Your task to perform on an android device: Search for vegetarian restaurants on Maps Image 0: 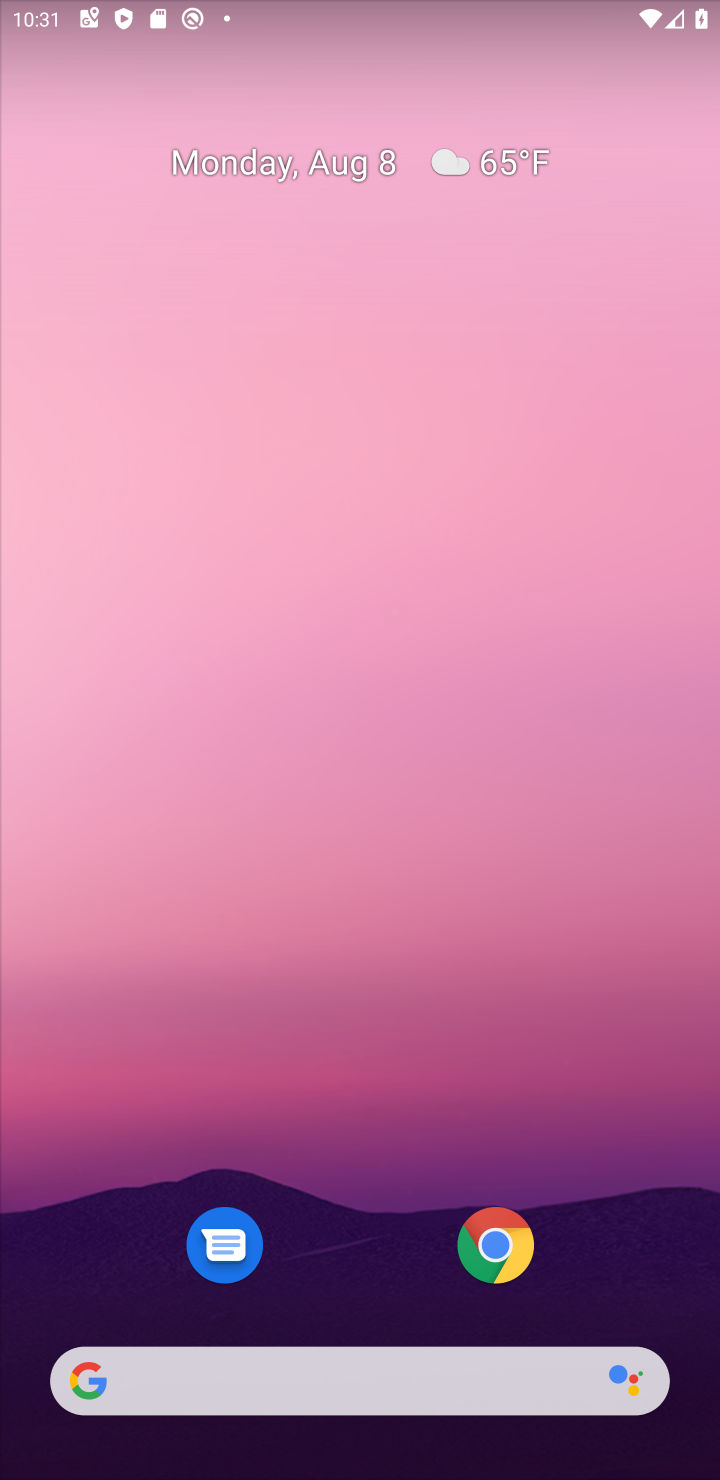
Step 0: drag from (365, 1177) to (319, 188)
Your task to perform on an android device: Search for vegetarian restaurants on Maps Image 1: 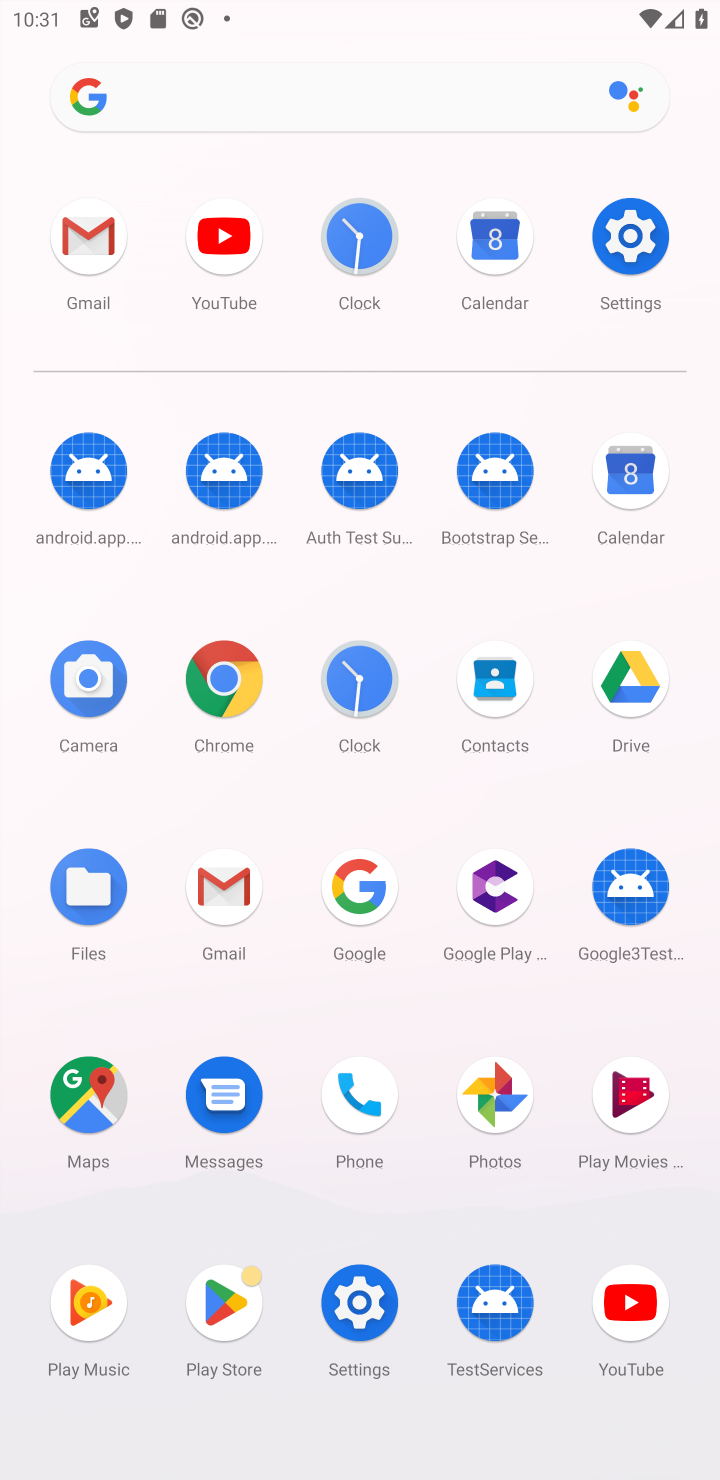
Step 1: click (86, 1096)
Your task to perform on an android device: Search for vegetarian restaurants on Maps Image 2: 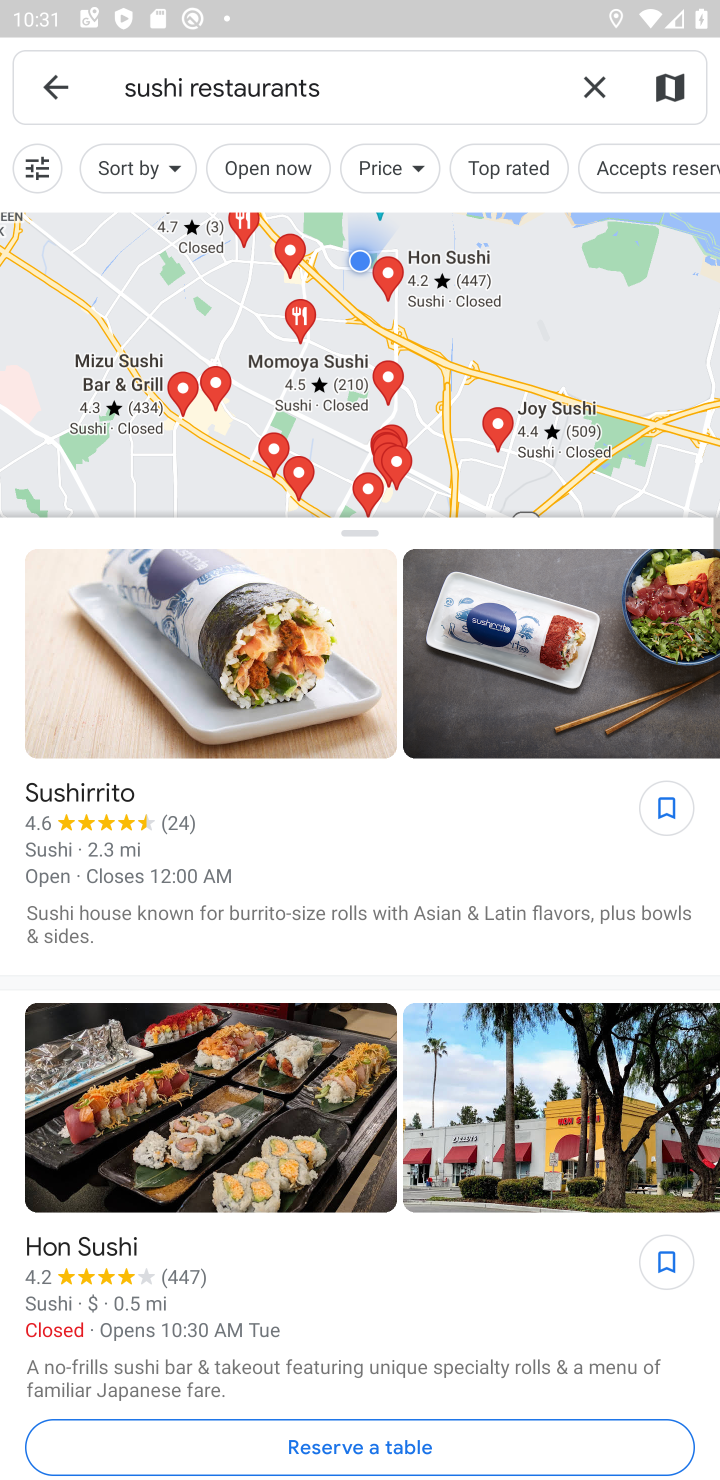
Step 2: click (594, 89)
Your task to perform on an android device: Search for vegetarian restaurants on Maps Image 3: 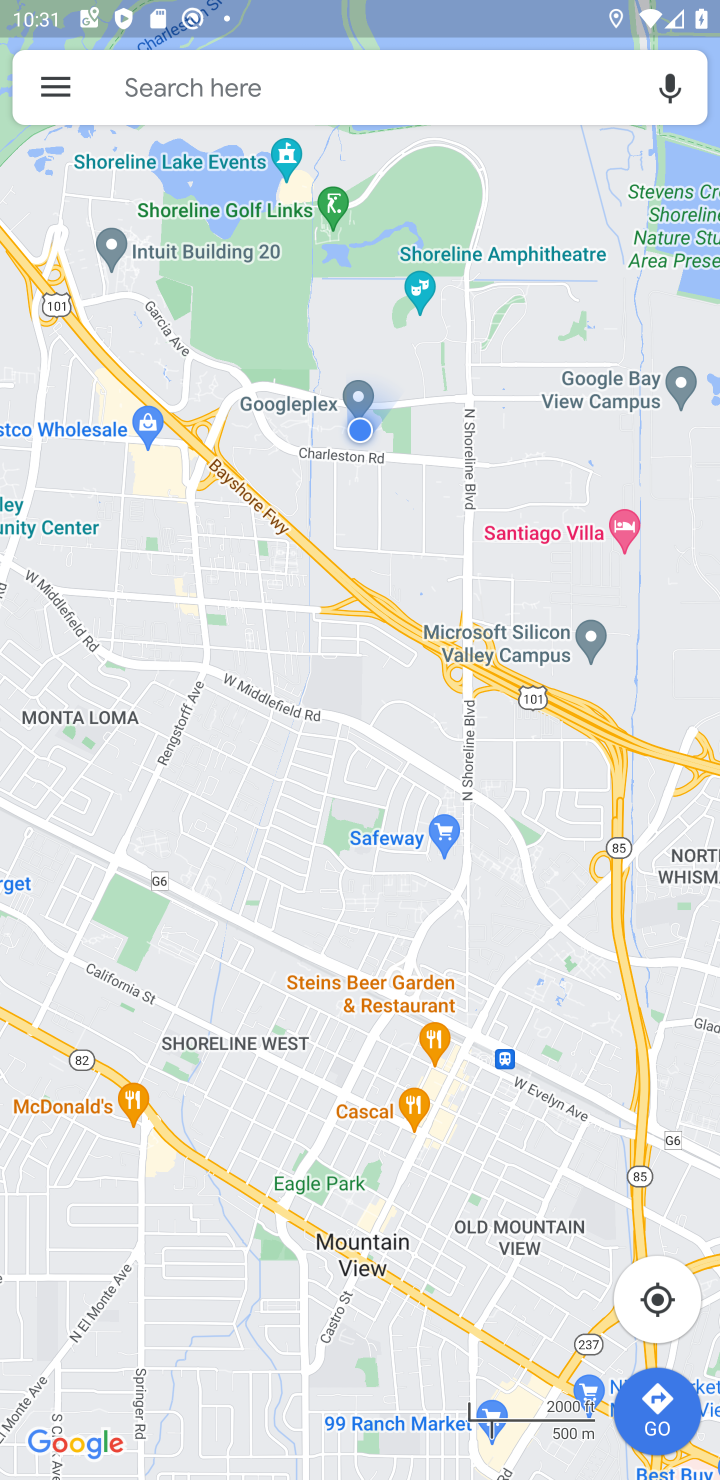
Step 3: click (329, 94)
Your task to perform on an android device: Search for vegetarian restaurants on Maps Image 4: 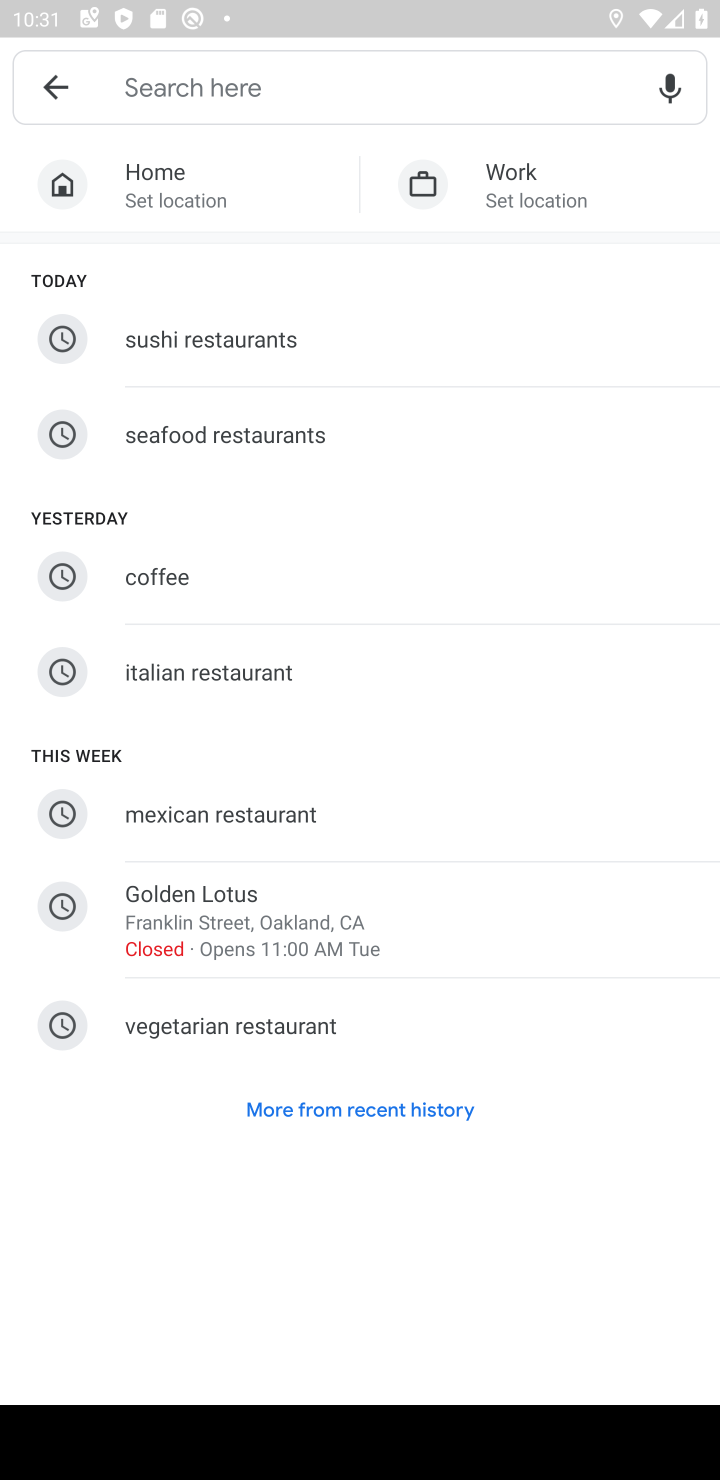
Step 4: click (267, 1026)
Your task to perform on an android device: Search for vegetarian restaurants on Maps Image 5: 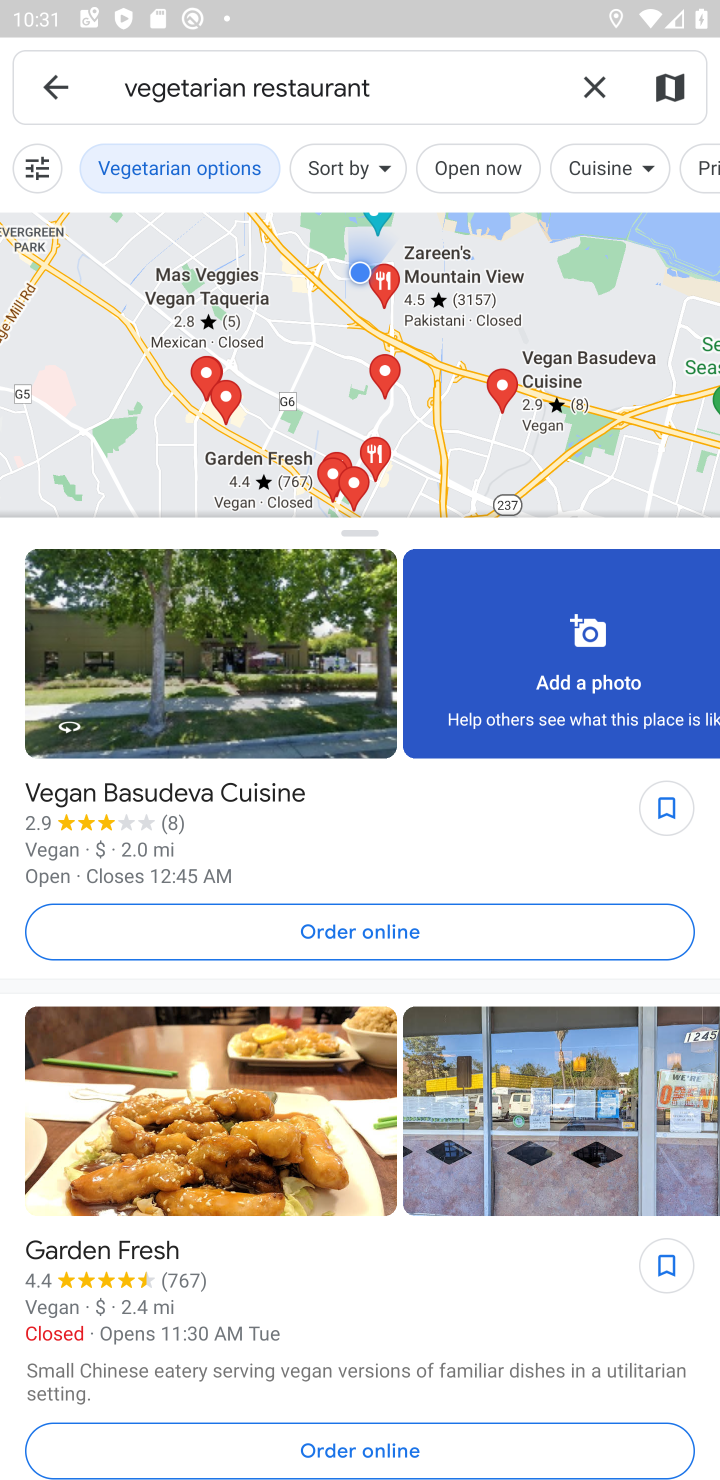
Step 5: task complete